Your task to perform on an android device: Check the news Image 0: 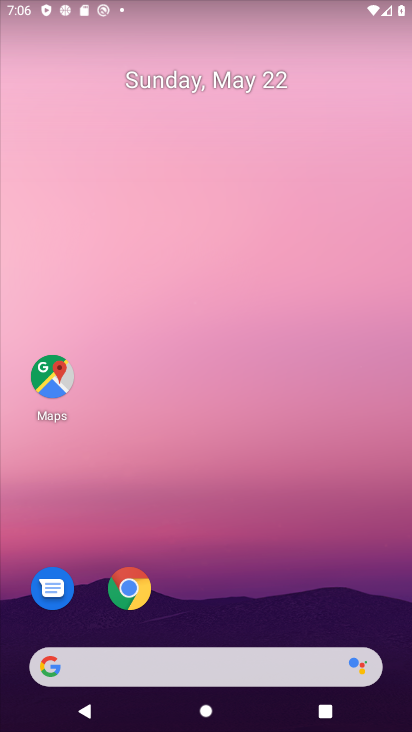
Step 0: drag from (2, 212) to (404, 339)
Your task to perform on an android device: Check the news Image 1: 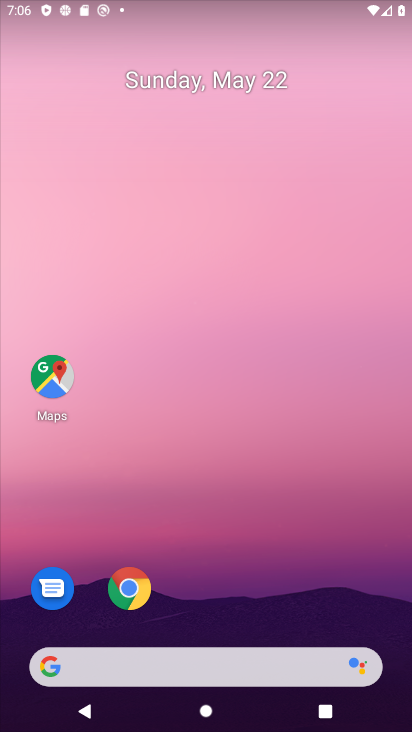
Step 1: task complete